Your task to perform on an android device: Go to eBay Image 0: 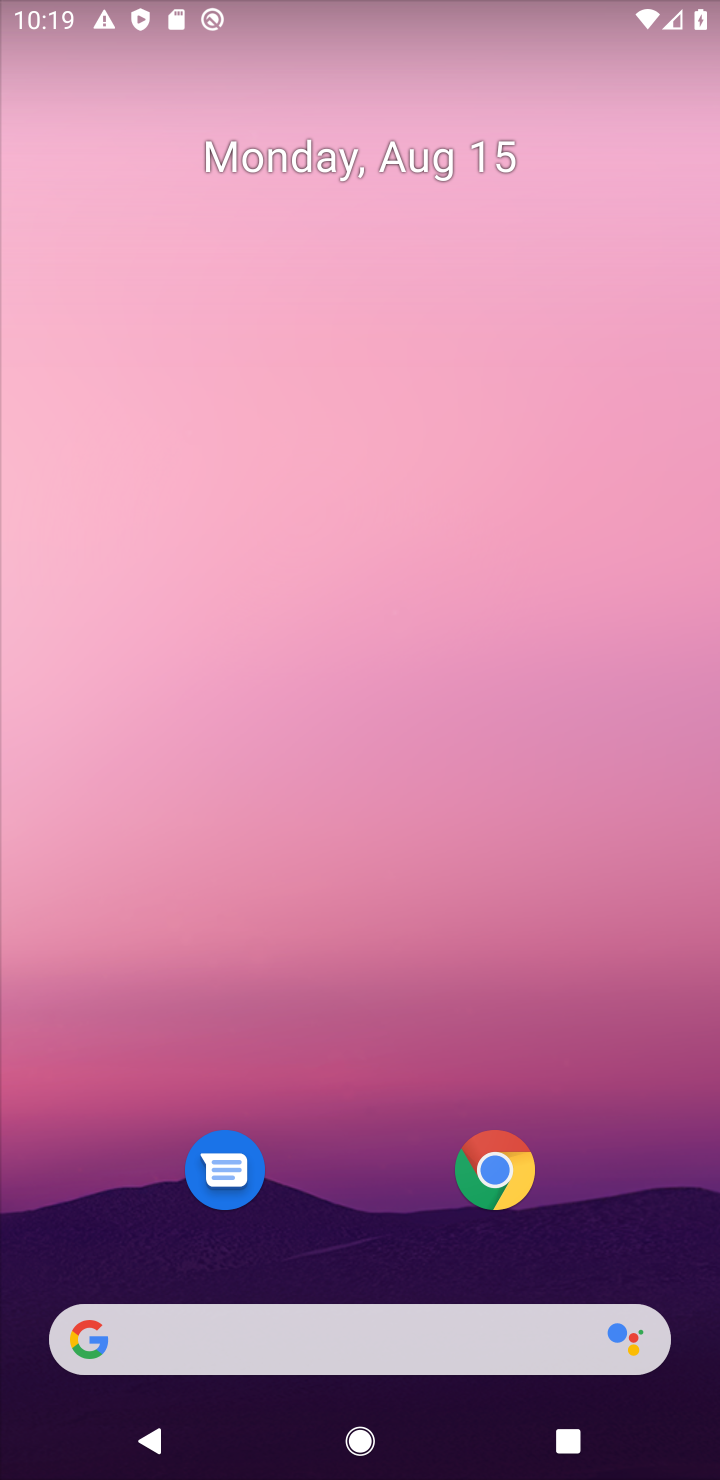
Step 0: click (378, 90)
Your task to perform on an android device: Go to eBay Image 1: 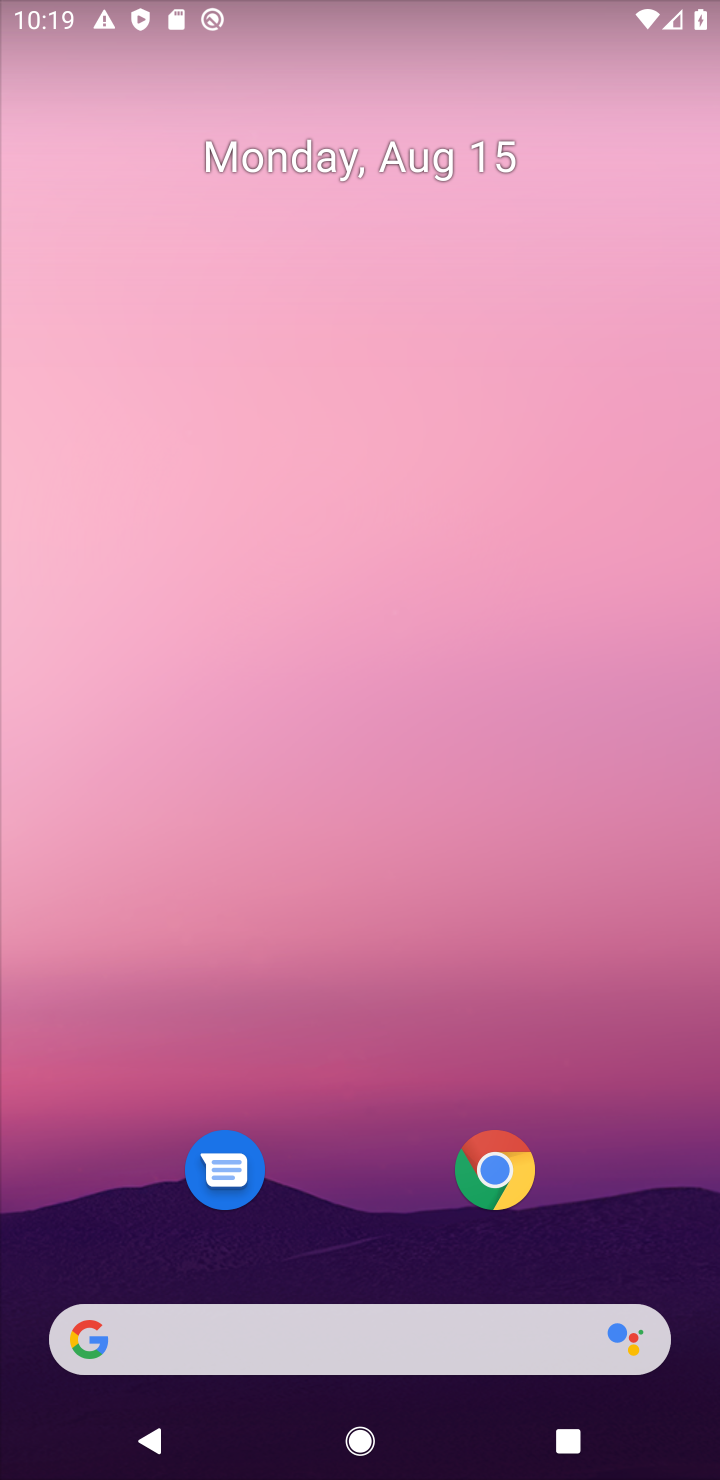
Step 1: click (491, 1158)
Your task to perform on an android device: Go to eBay Image 2: 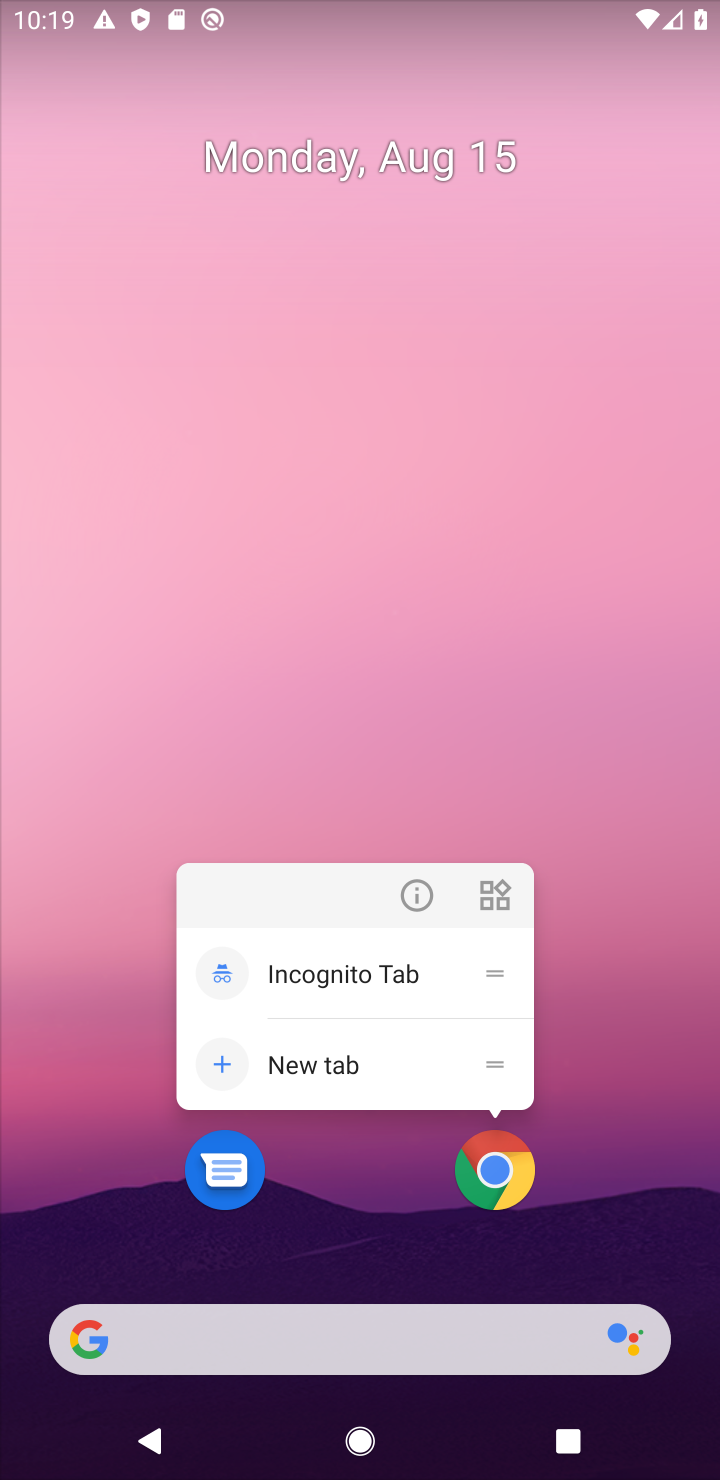
Step 2: click (368, 1247)
Your task to perform on an android device: Go to eBay Image 3: 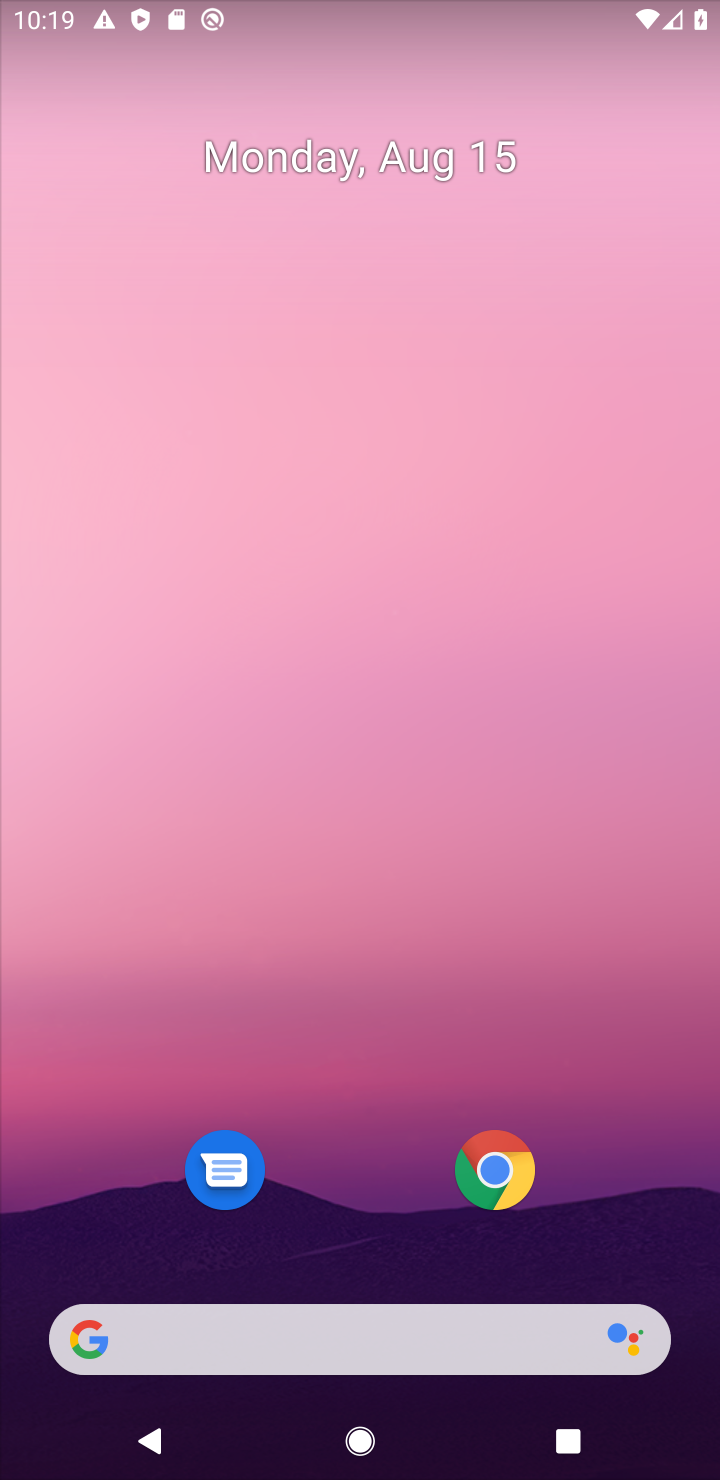
Step 3: click (491, 1160)
Your task to perform on an android device: Go to eBay Image 4: 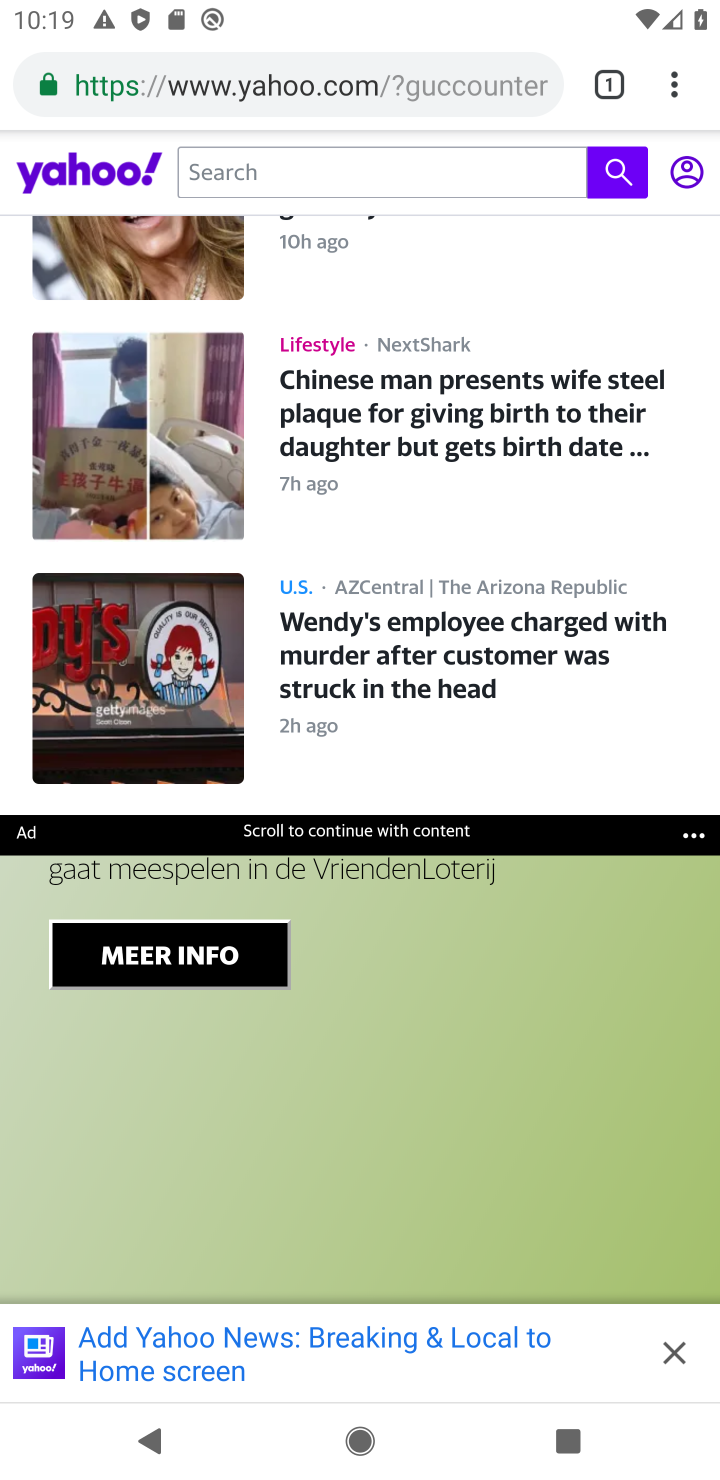
Step 4: click (603, 72)
Your task to perform on an android device: Go to eBay Image 5: 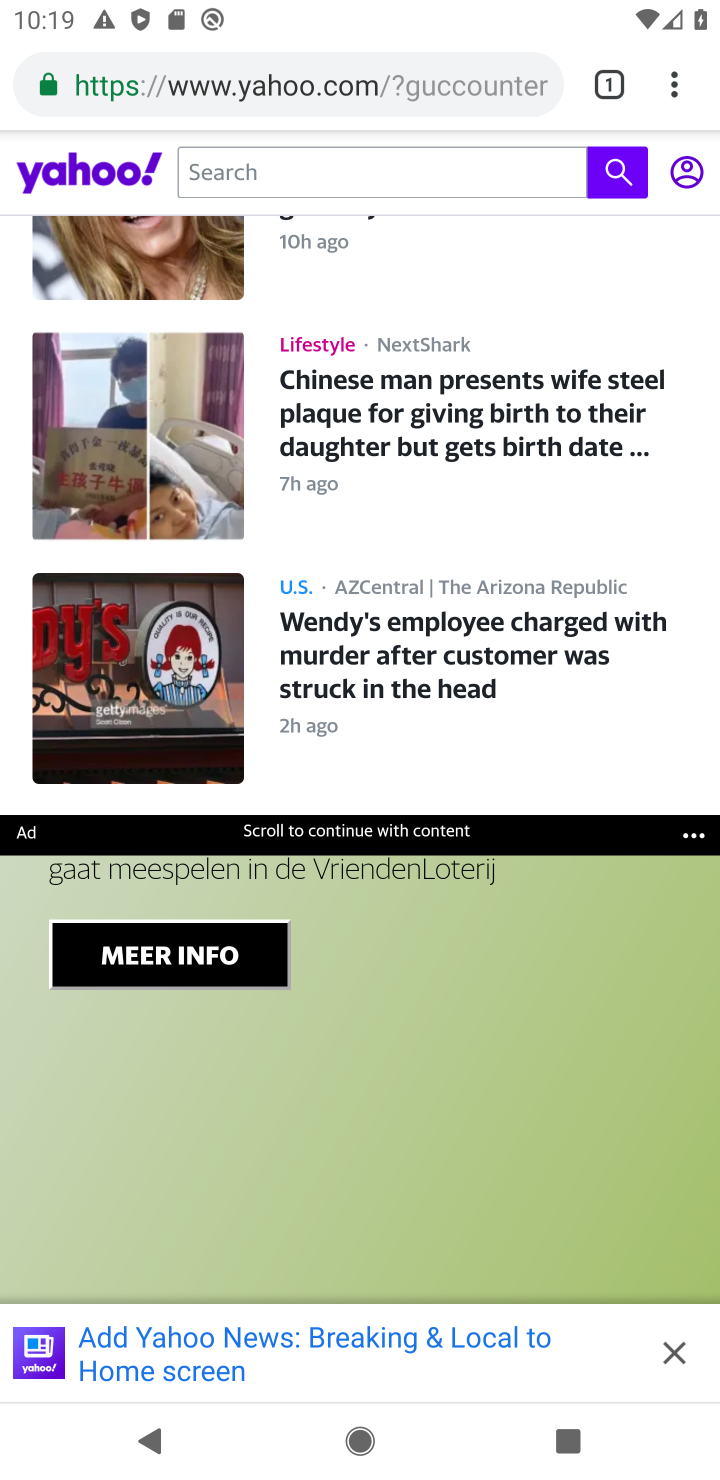
Step 5: click (601, 81)
Your task to perform on an android device: Go to eBay Image 6: 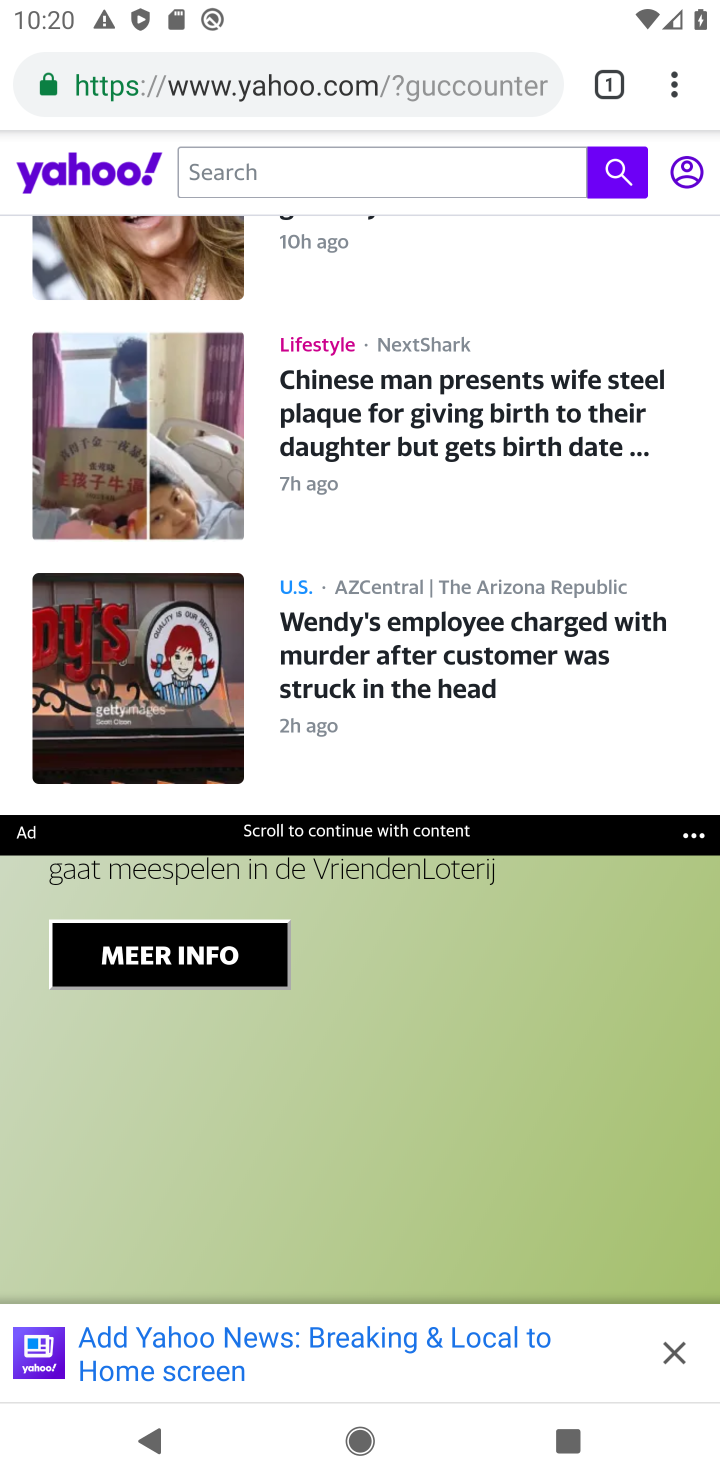
Step 6: click (612, 79)
Your task to perform on an android device: Go to eBay Image 7: 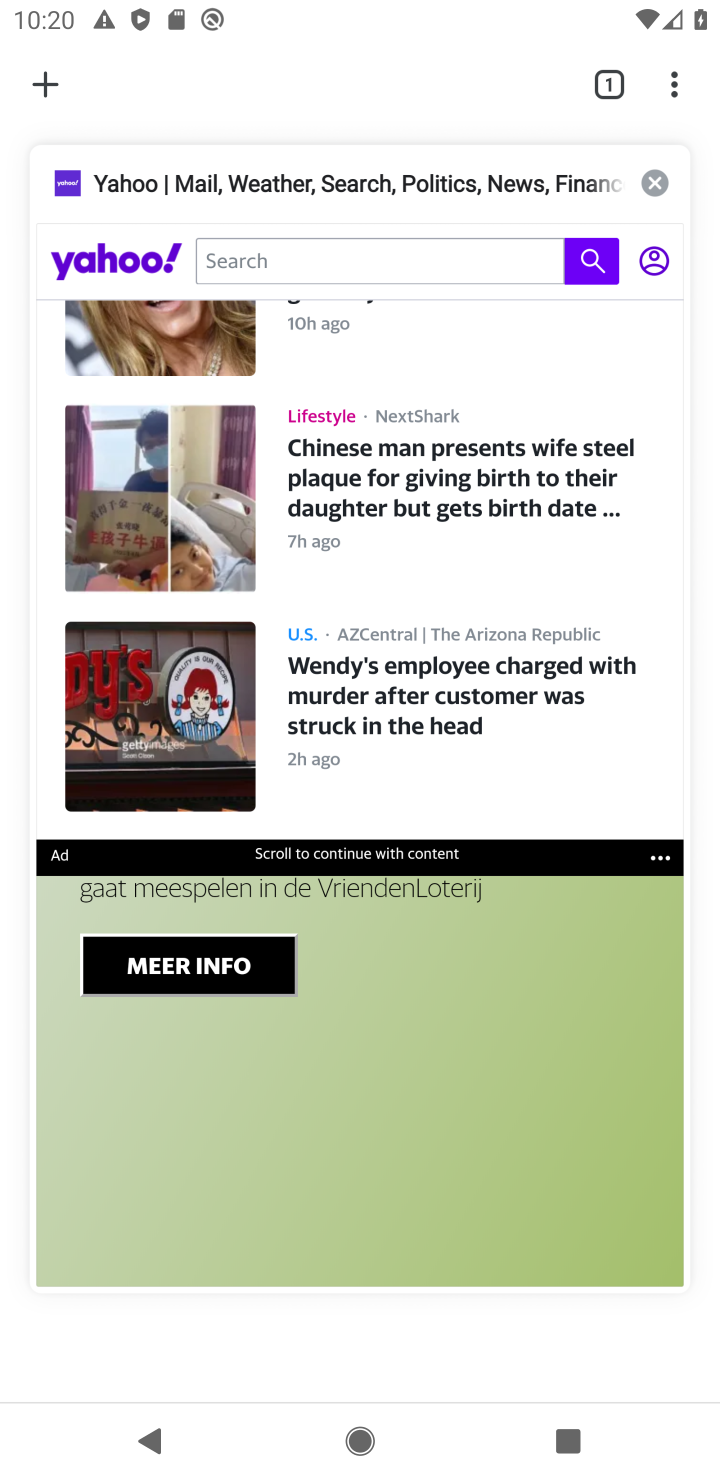
Step 7: click (41, 86)
Your task to perform on an android device: Go to eBay Image 8: 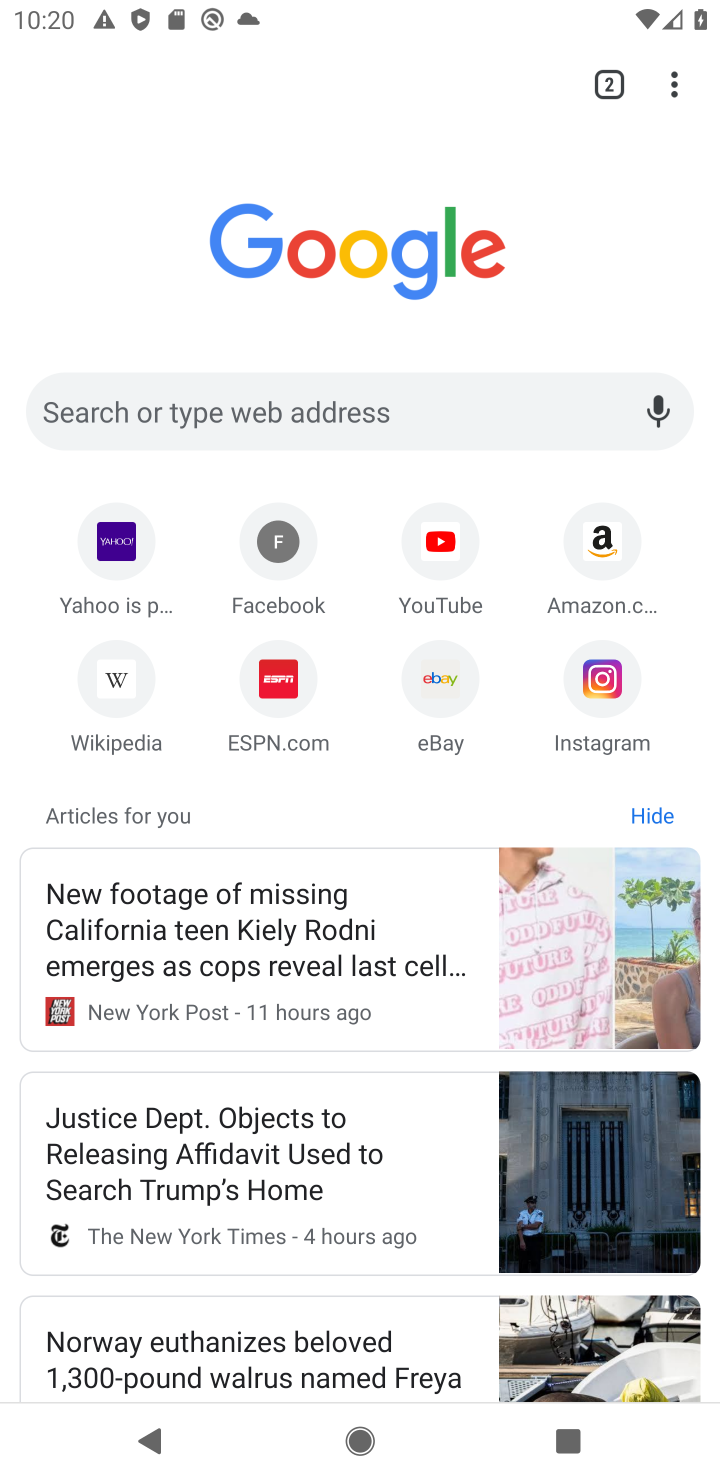
Step 8: click (433, 668)
Your task to perform on an android device: Go to eBay Image 9: 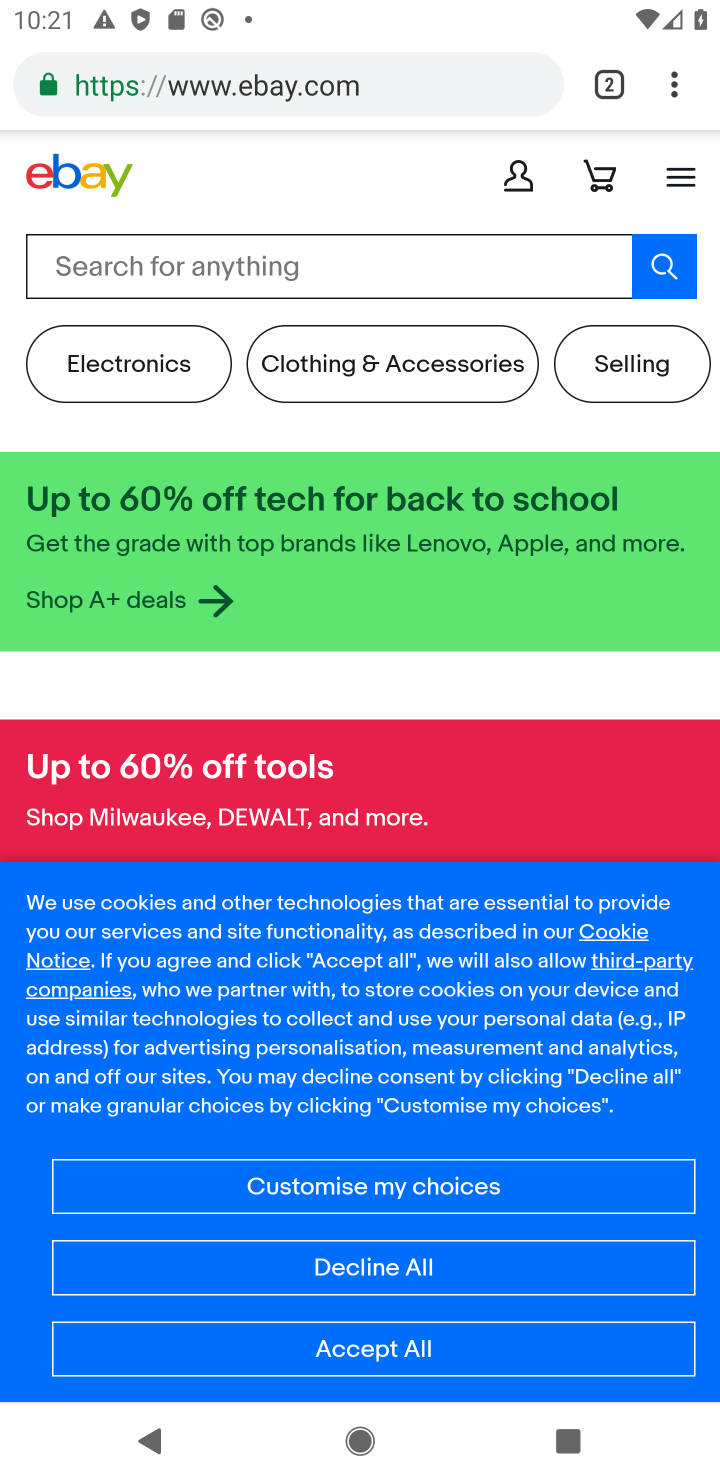
Step 9: click (401, 1352)
Your task to perform on an android device: Go to eBay Image 10: 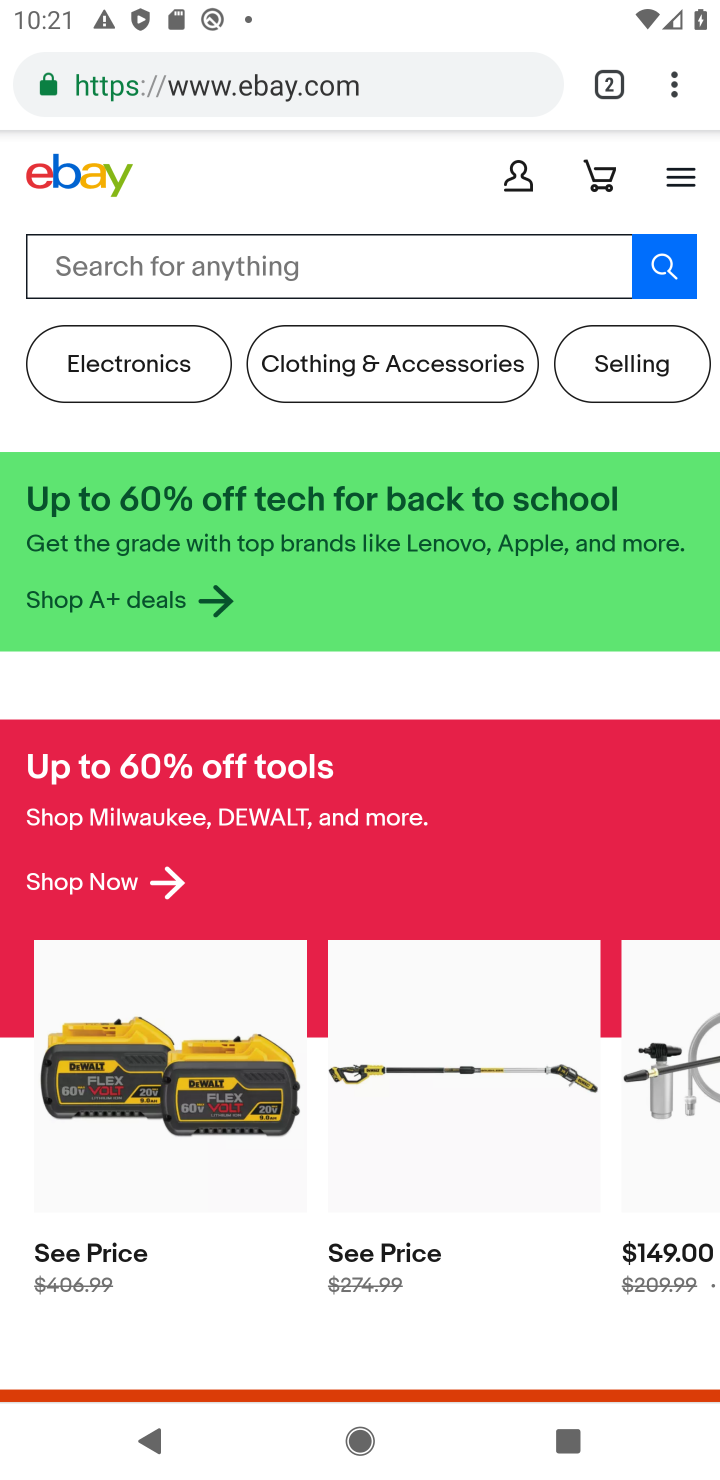
Step 10: task complete